Your task to perform on an android device: turn off translation in the chrome app Image 0: 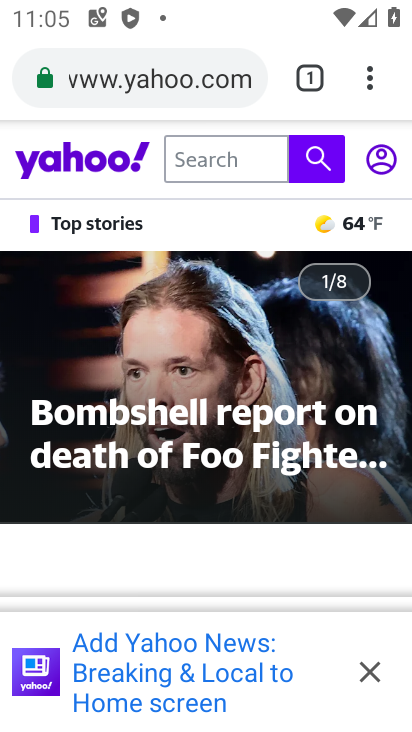
Step 0: click (365, 64)
Your task to perform on an android device: turn off translation in the chrome app Image 1: 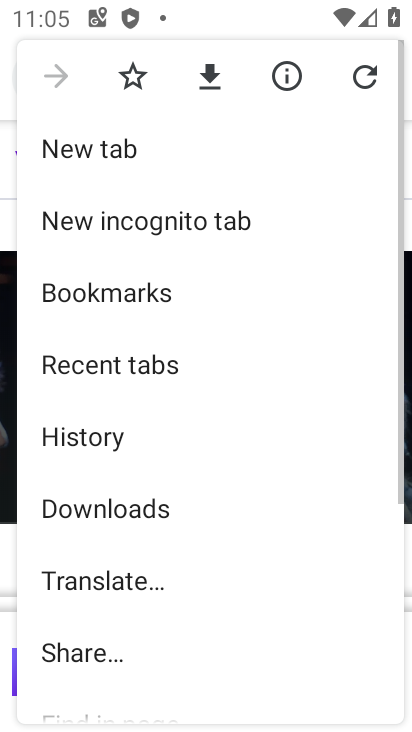
Step 1: drag from (167, 643) to (190, 227)
Your task to perform on an android device: turn off translation in the chrome app Image 2: 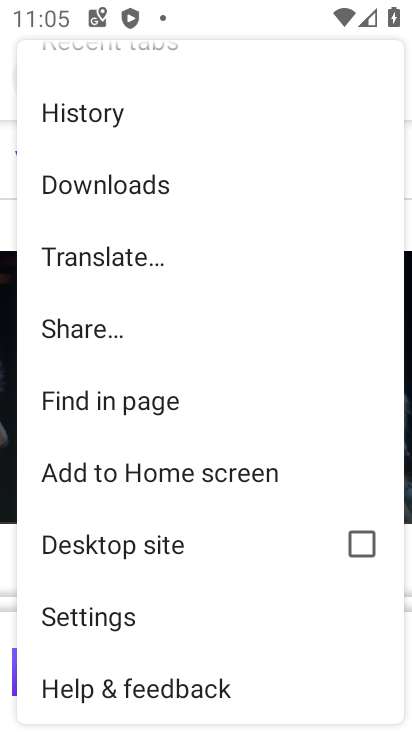
Step 2: click (156, 612)
Your task to perform on an android device: turn off translation in the chrome app Image 3: 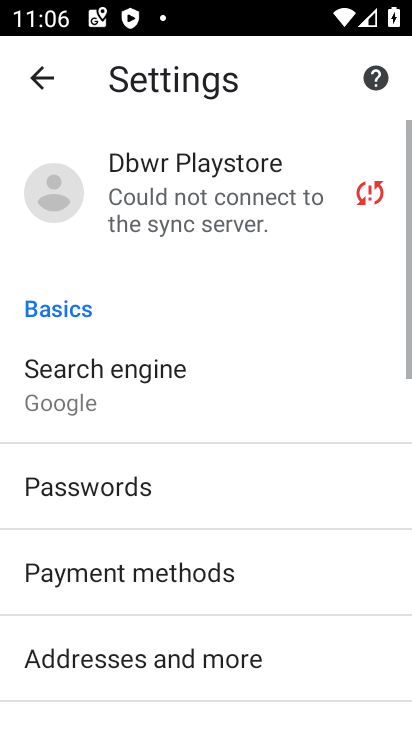
Step 3: drag from (136, 611) to (120, 87)
Your task to perform on an android device: turn off translation in the chrome app Image 4: 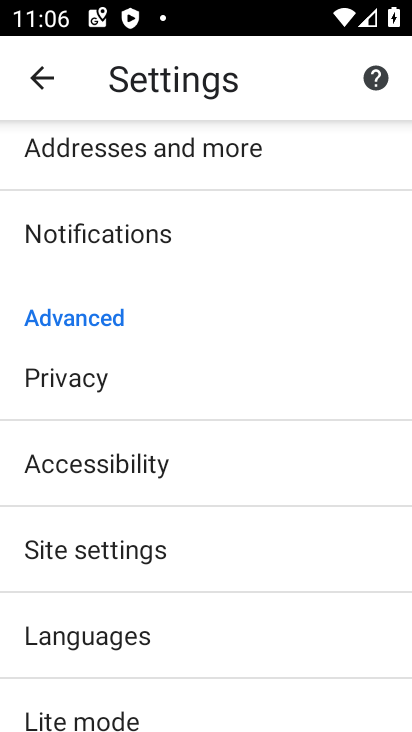
Step 4: click (147, 659)
Your task to perform on an android device: turn off translation in the chrome app Image 5: 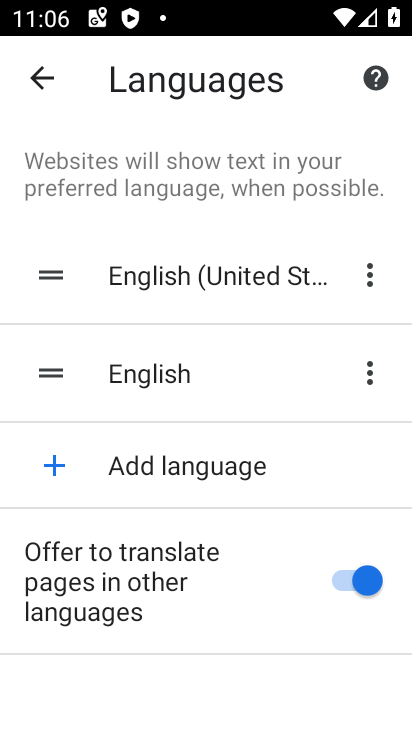
Step 5: click (356, 588)
Your task to perform on an android device: turn off translation in the chrome app Image 6: 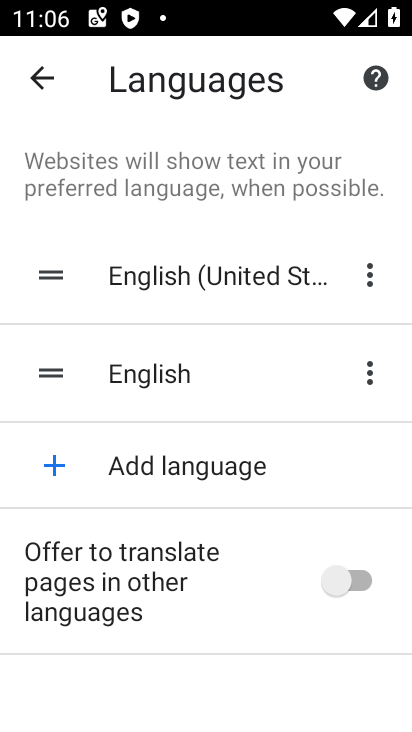
Step 6: task complete